Your task to perform on an android device: Go to eBay Image 0: 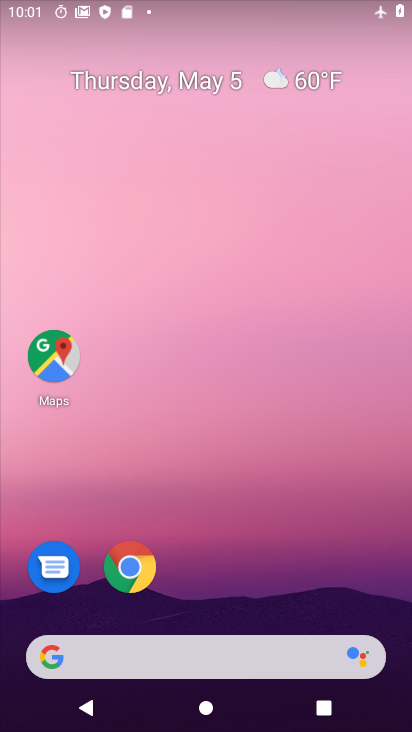
Step 0: drag from (273, 547) to (275, 83)
Your task to perform on an android device: Go to eBay Image 1: 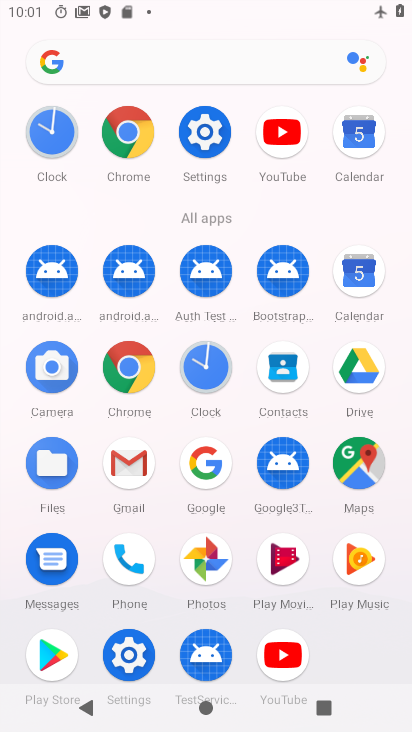
Step 1: click (117, 134)
Your task to perform on an android device: Go to eBay Image 2: 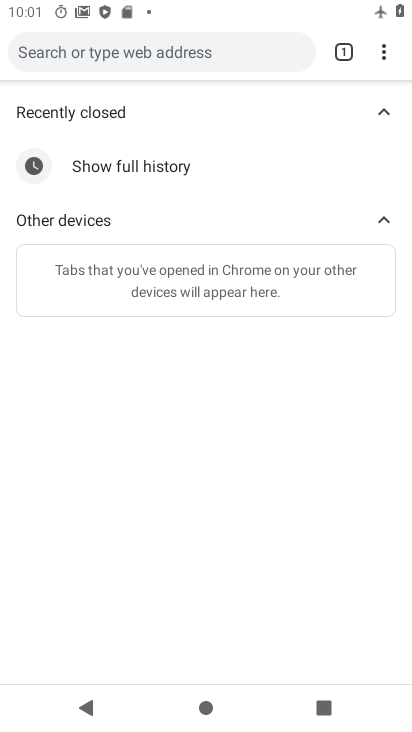
Step 2: press back button
Your task to perform on an android device: Go to eBay Image 3: 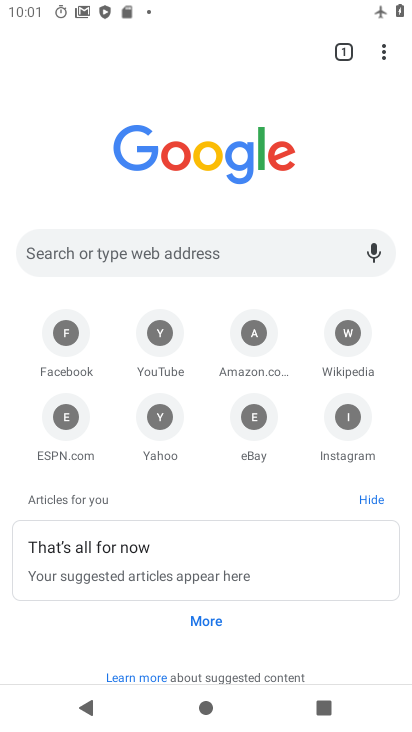
Step 3: click (256, 424)
Your task to perform on an android device: Go to eBay Image 4: 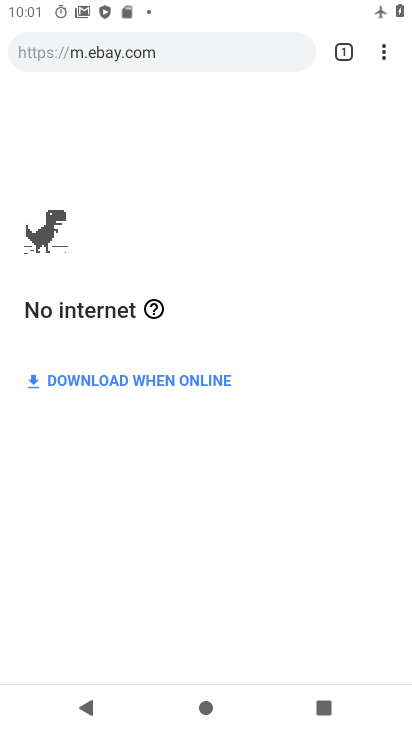
Step 4: task complete